Your task to perform on an android device: allow notifications from all sites in the chrome app Image 0: 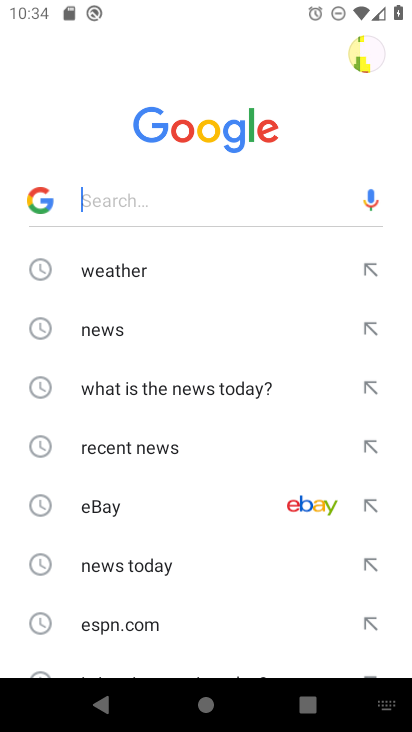
Step 0: press home button
Your task to perform on an android device: allow notifications from all sites in the chrome app Image 1: 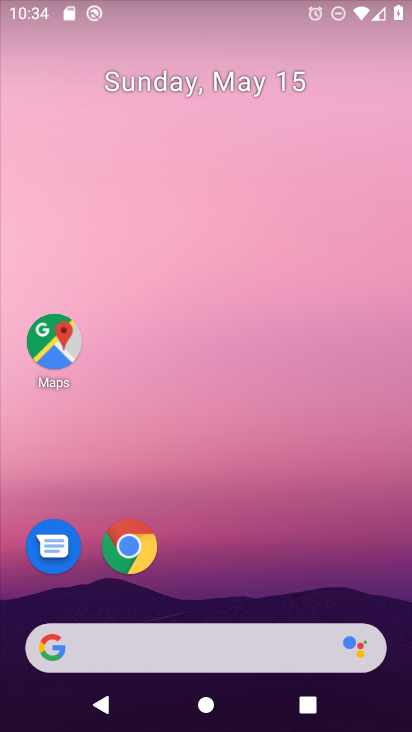
Step 1: click (298, 589)
Your task to perform on an android device: allow notifications from all sites in the chrome app Image 2: 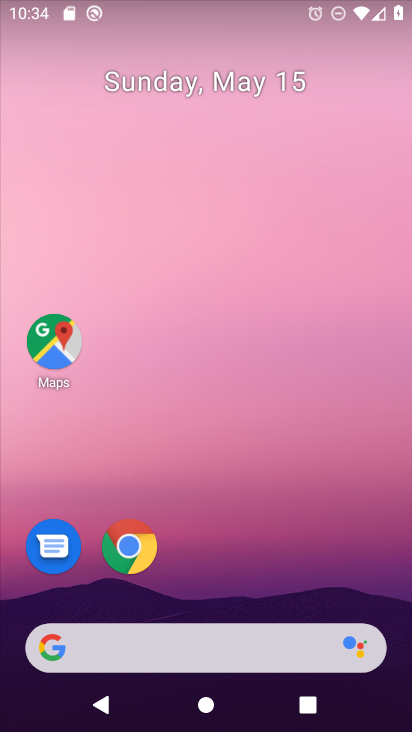
Step 2: click (132, 548)
Your task to perform on an android device: allow notifications from all sites in the chrome app Image 3: 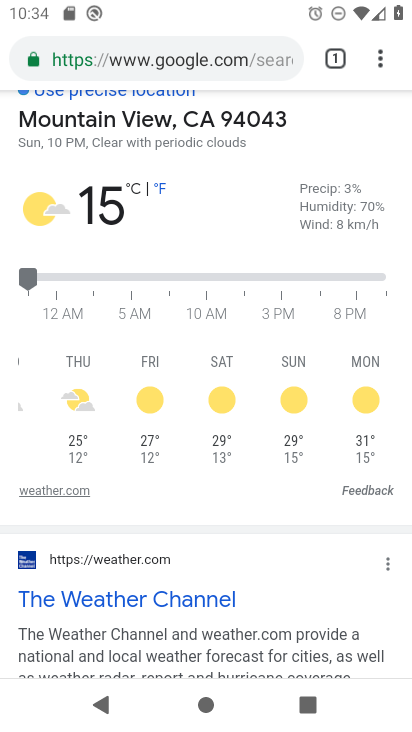
Step 3: drag from (378, 48) to (181, 566)
Your task to perform on an android device: allow notifications from all sites in the chrome app Image 4: 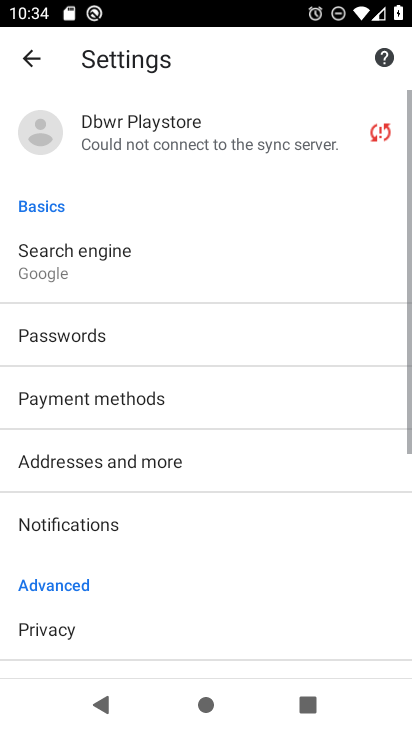
Step 4: drag from (173, 562) to (230, 215)
Your task to perform on an android device: allow notifications from all sites in the chrome app Image 5: 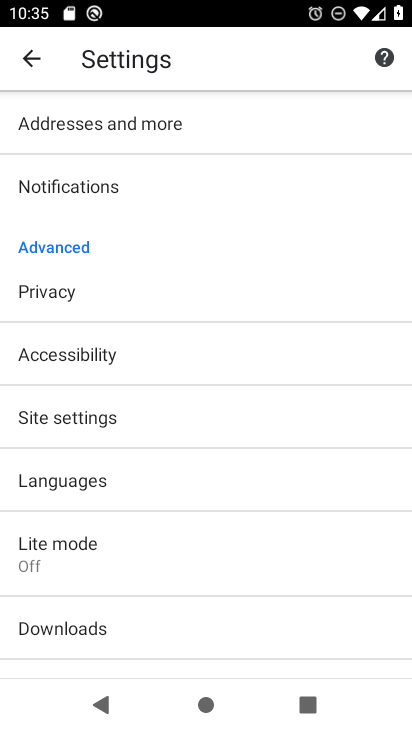
Step 5: click (75, 412)
Your task to perform on an android device: allow notifications from all sites in the chrome app Image 6: 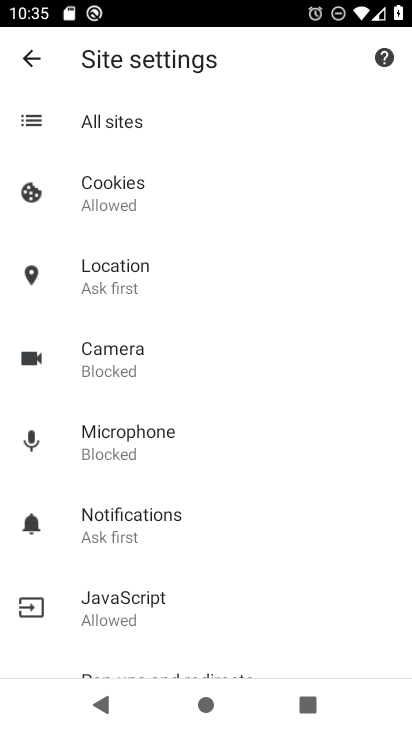
Step 6: drag from (222, 502) to (262, 506)
Your task to perform on an android device: allow notifications from all sites in the chrome app Image 7: 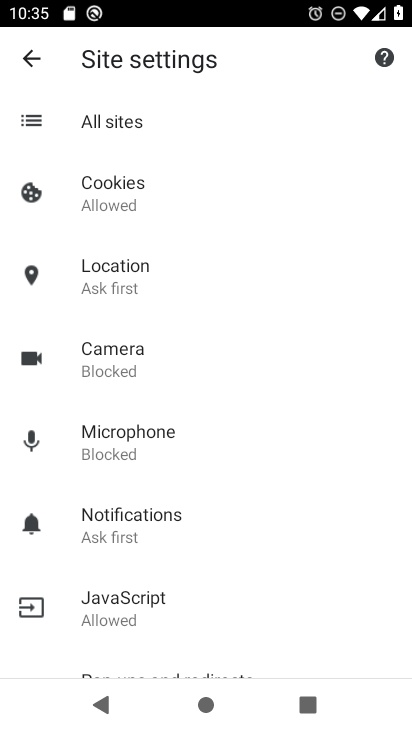
Step 7: drag from (199, 267) to (221, 461)
Your task to perform on an android device: allow notifications from all sites in the chrome app Image 8: 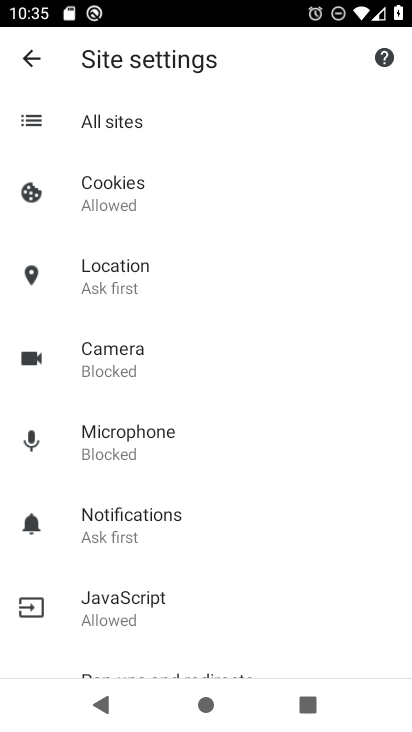
Step 8: click (34, 57)
Your task to perform on an android device: allow notifications from all sites in the chrome app Image 9: 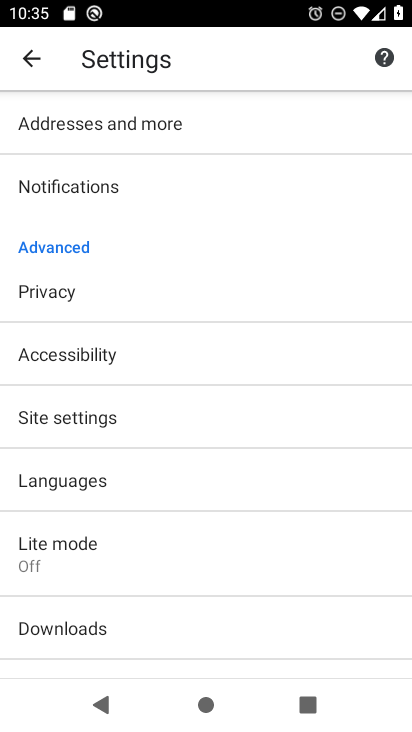
Step 9: click (113, 187)
Your task to perform on an android device: allow notifications from all sites in the chrome app Image 10: 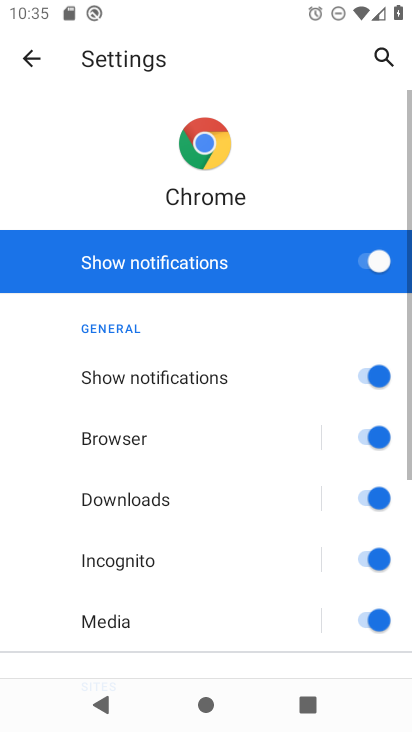
Step 10: task complete